Your task to perform on an android device: Turn on the flashlight Image 0: 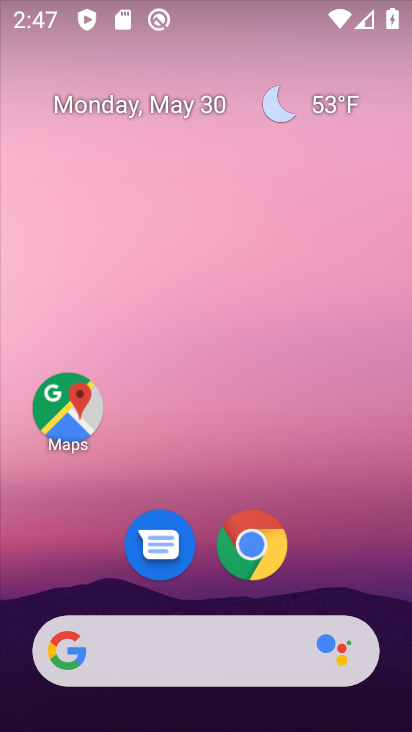
Step 0: drag from (227, 595) to (189, 28)
Your task to perform on an android device: Turn on the flashlight Image 1: 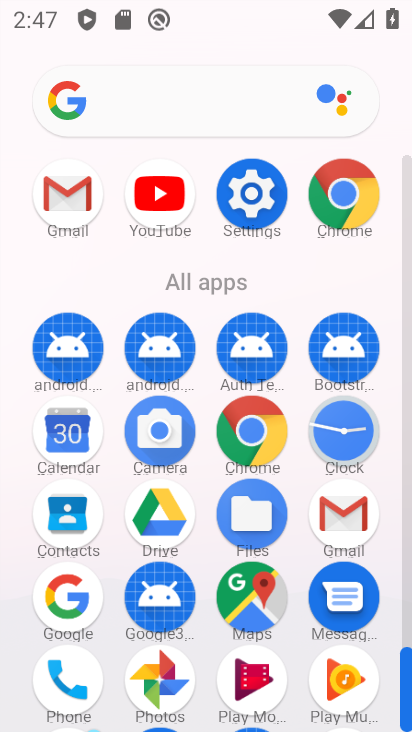
Step 1: click (244, 205)
Your task to perform on an android device: Turn on the flashlight Image 2: 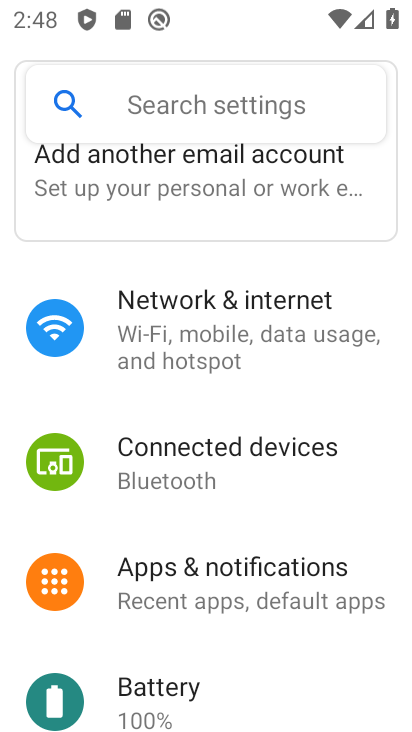
Step 2: task complete